Your task to perform on an android device: change notification settings in the gmail app Image 0: 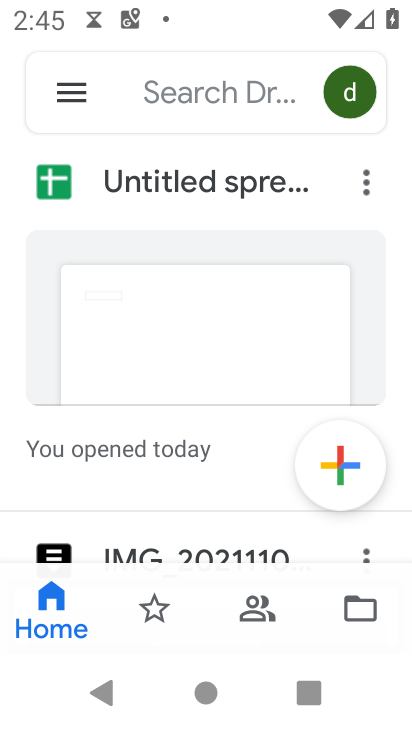
Step 0: press home button
Your task to perform on an android device: change notification settings in the gmail app Image 1: 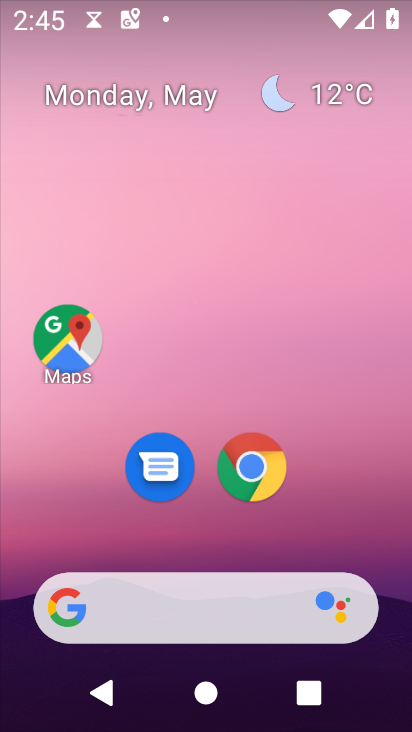
Step 1: drag from (379, 525) to (354, 107)
Your task to perform on an android device: change notification settings in the gmail app Image 2: 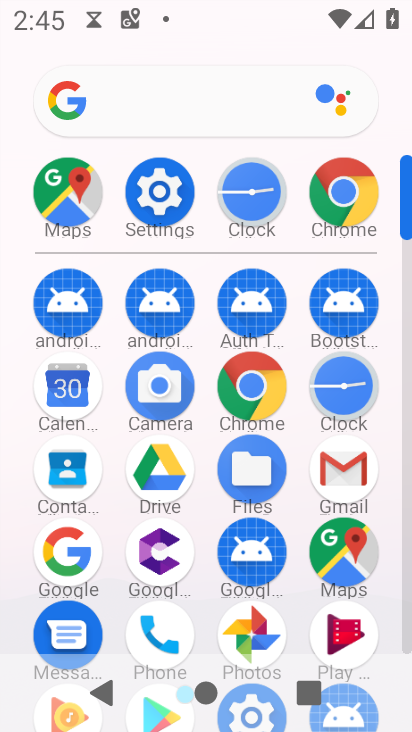
Step 2: click (351, 463)
Your task to perform on an android device: change notification settings in the gmail app Image 3: 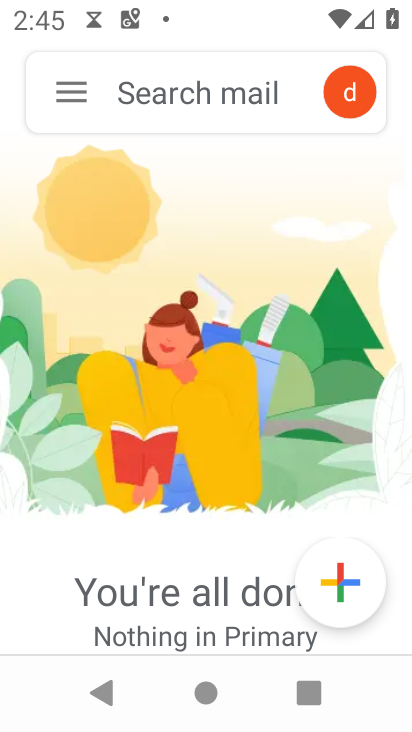
Step 3: click (72, 91)
Your task to perform on an android device: change notification settings in the gmail app Image 4: 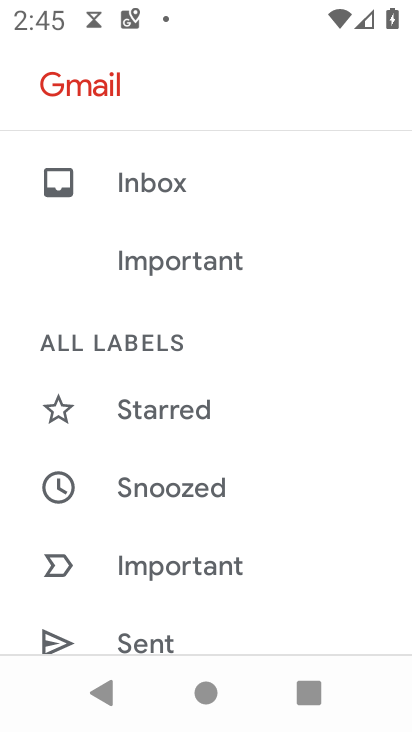
Step 4: drag from (234, 557) to (160, 223)
Your task to perform on an android device: change notification settings in the gmail app Image 5: 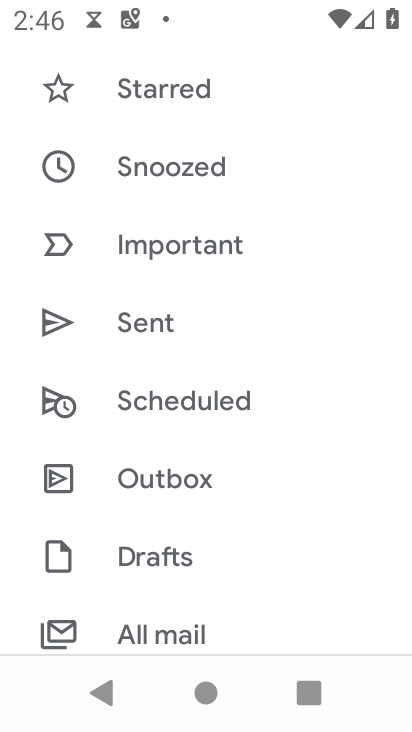
Step 5: drag from (251, 597) to (203, 87)
Your task to perform on an android device: change notification settings in the gmail app Image 6: 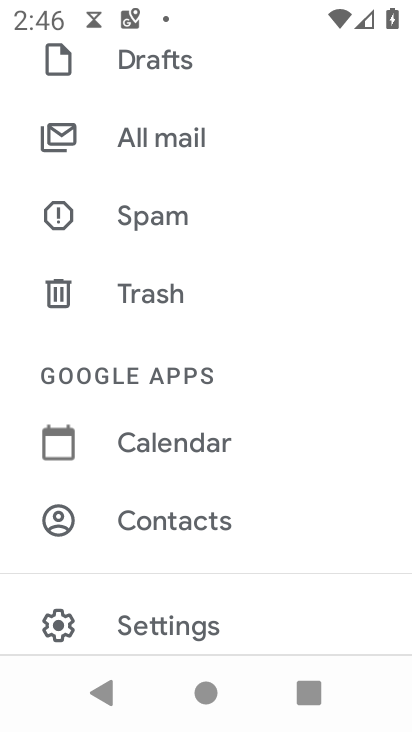
Step 6: click (255, 629)
Your task to perform on an android device: change notification settings in the gmail app Image 7: 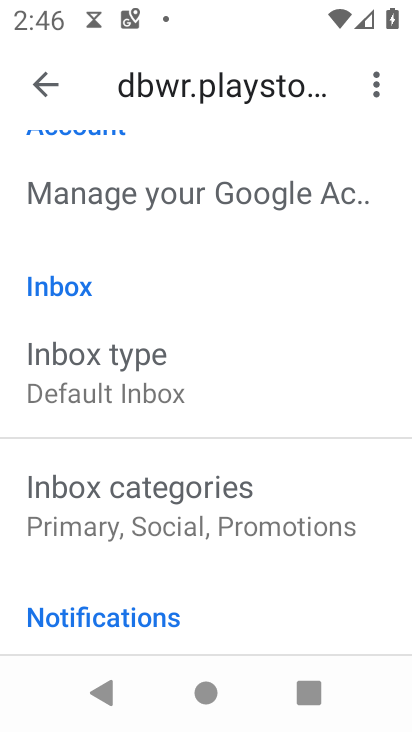
Step 7: drag from (266, 570) to (190, 183)
Your task to perform on an android device: change notification settings in the gmail app Image 8: 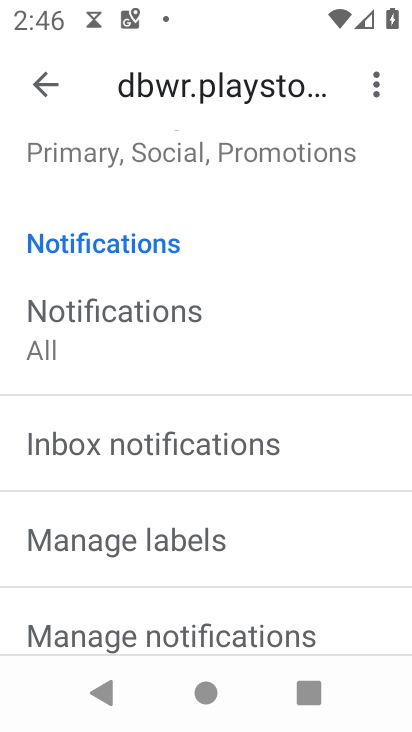
Step 8: drag from (237, 588) to (172, 253)
Your task to perform on an android device: change notification settings in the gmail app Image 9: 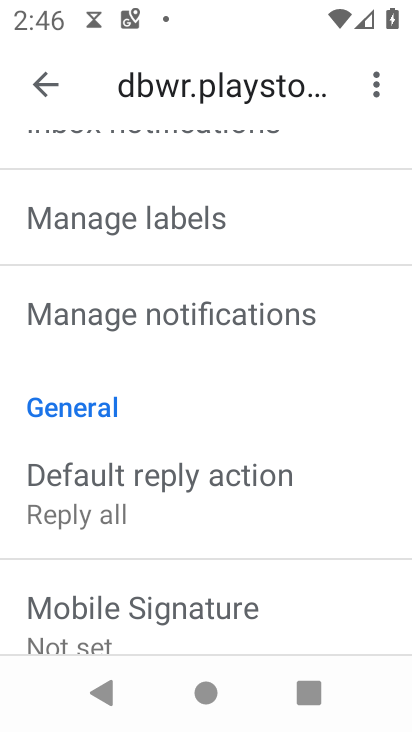
Step 9: click (182, 282)
Your task to perform on an android device: change notification settings in the gmail app Image 10: 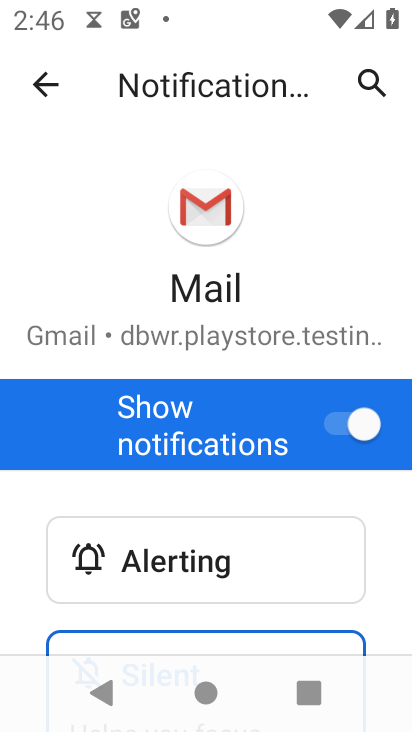
Step 10: drag from (393, 605) to (282, 185)
Your task to perform on an android device: change notification settings in the gmail app Image 11: 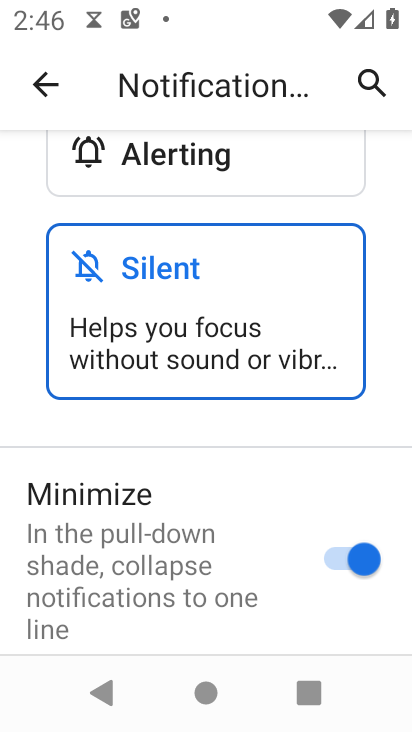
Step 11: click (282, 185)
Your task to perform on an android device: change notification settings in the gmail app Image 12: 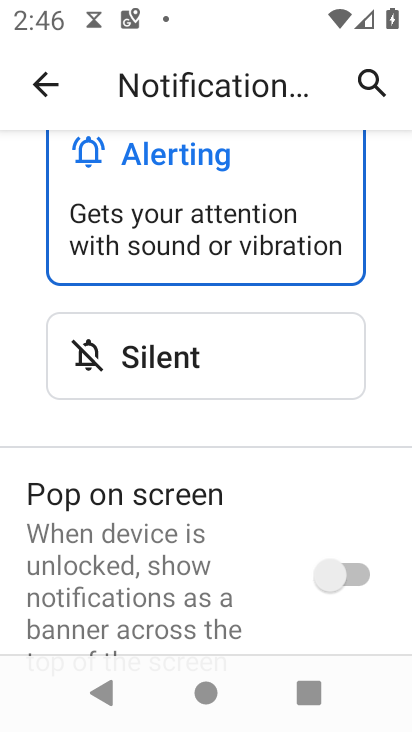
Step 12: click (354, 574)
Your task to perform on an android device: change notification settings in the gmail app Image 13: 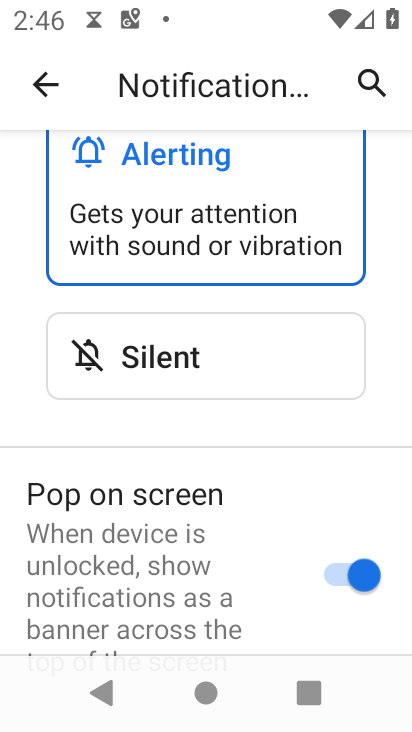
Step 13: task complete